Your task to perform on an android device: turn off javascript in the chrome app Image 0: 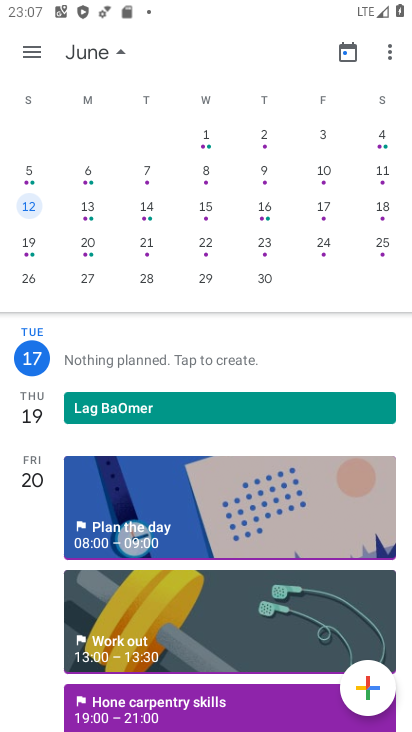
Step 0: press home button
Your task to perform on an android device: turn off javascript in the chrome app Image 1: 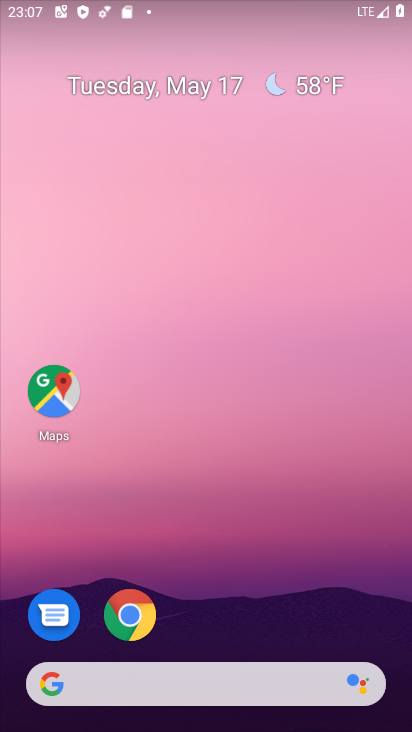
Step 1: click (149, 600)
Your task to perform on an android device: turn off javascript in the chrome app Image 2: 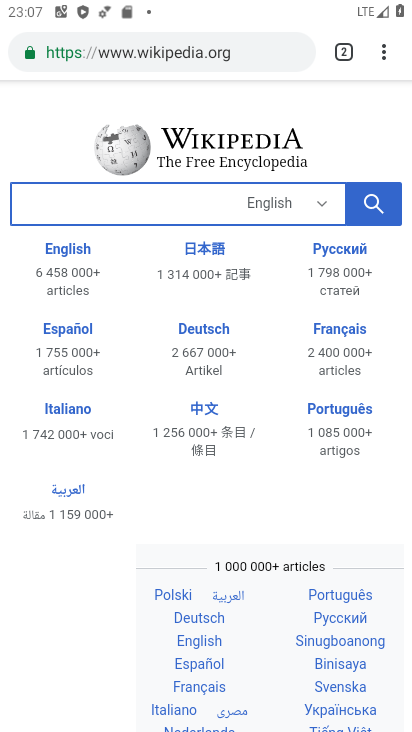
Step 2: press home button
Your task to perform on an android device: turn off javascript in the chrome app Image 3: 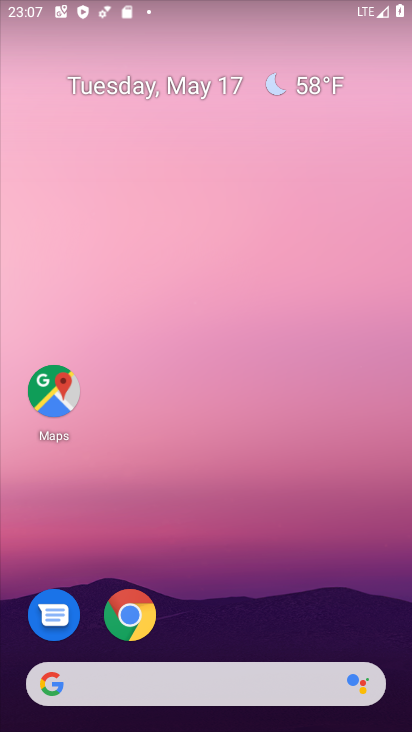
Step 3: click (147, 608)
Your task to perform on an android device: turn off javascript in the chrome app Image 4: 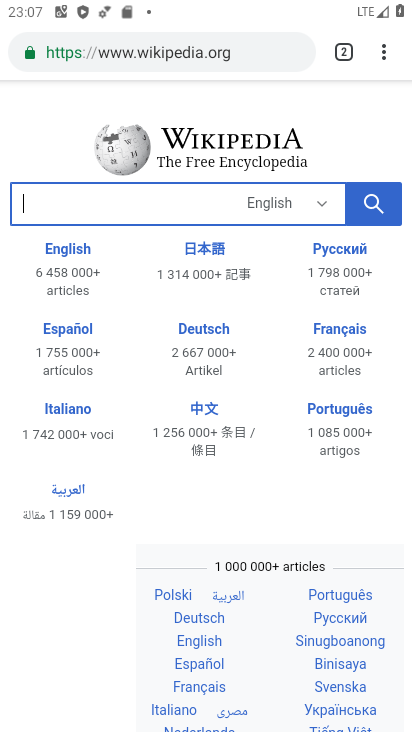
Step 4: drag from (378, 45) to (205, 606)
Your task to perform on an android device: turn off javascript in the chrome app Image 5: 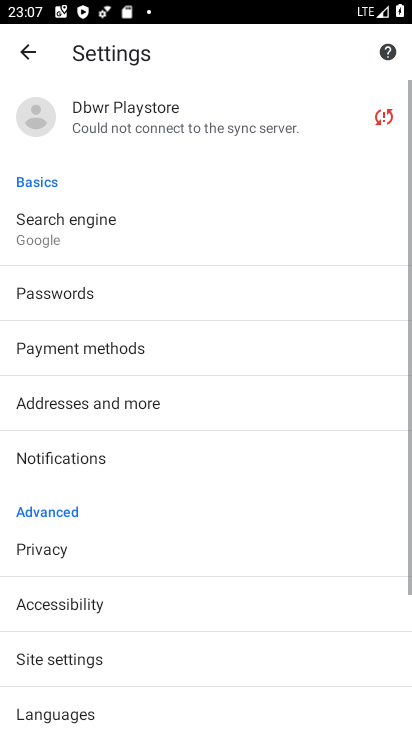
Step 5: drag from (165, 571) to (167, 367)
Your task to perform on an android device: turn off javascript in the chrome app Image 6: 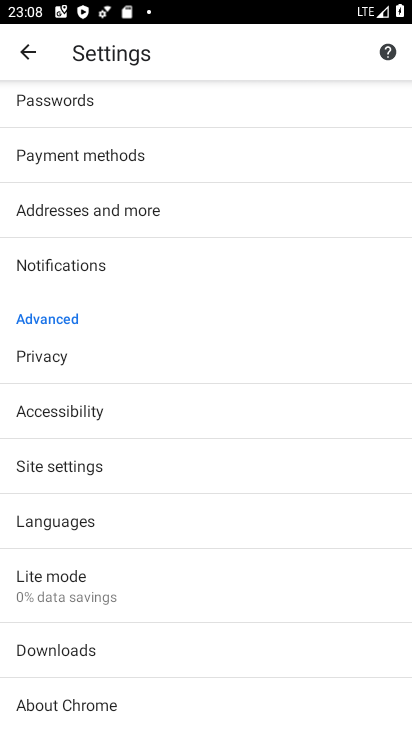
Step 6: drag from (133, 625) to (137, 483)
Your task to perform on an android device: turn off javascript in the chrome app Image 7: 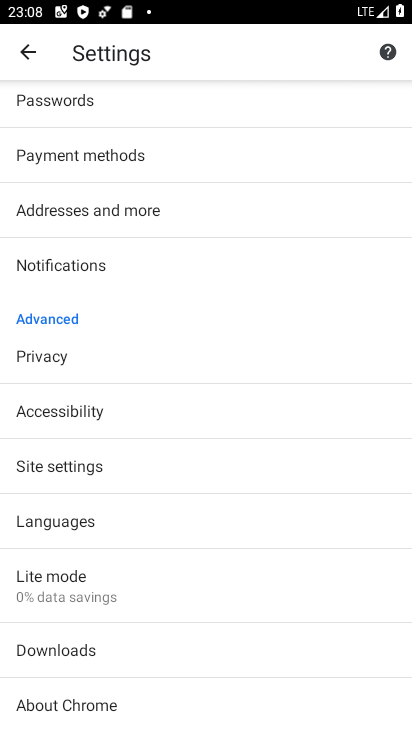
Step 7: click (100, 583)
Your task to perform on an android device: turn off javascript in the chrome app Image 8: 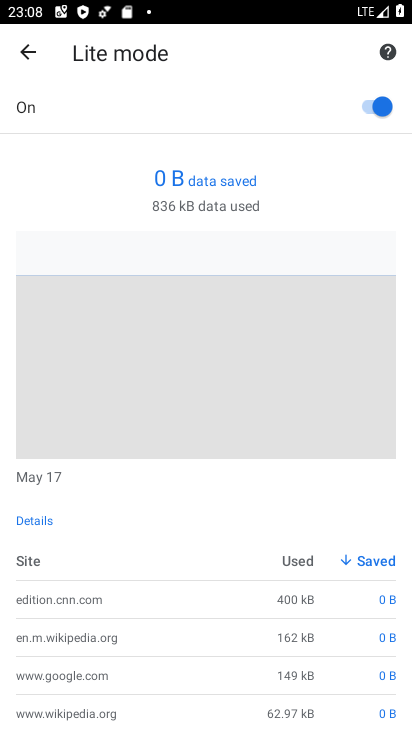
Step 8: click (372, 105)
Your task to perform on an android device: turn off javascript in the chrome app Image 9: 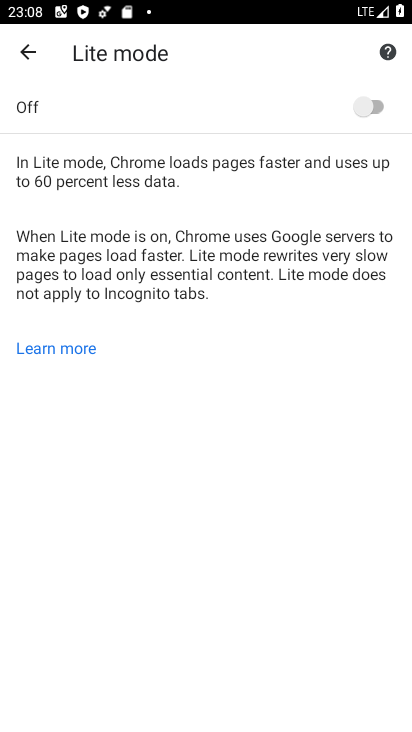
Step 9: click (27, 46)
Your task to perform on an android device: turn off javascript in the chrome app Image 10: 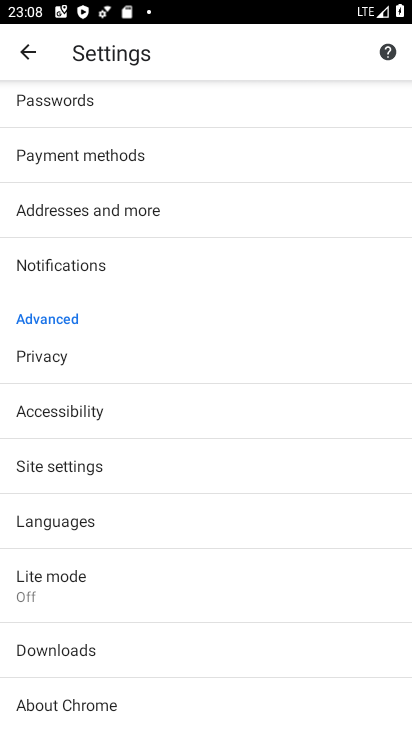
Step 10: click (100, 457)
Your task to perform on an android device: turn off javascript in the chrome app Image 11: 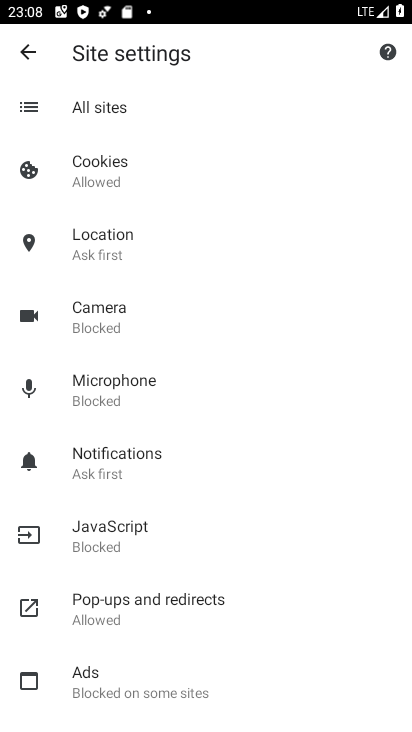
Step 11: click (82, 519)
Your task to perform on an android device: turn off javascript in the chrome app Image 12: 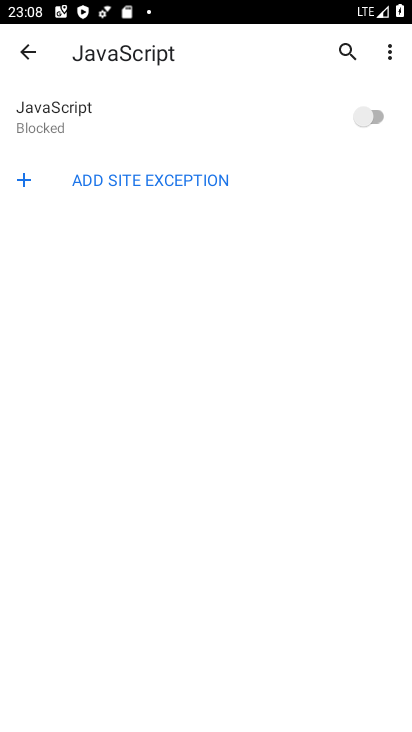
Step 12: task complete